Your task to perform on an android device: Is it going to rain today? Image 0: 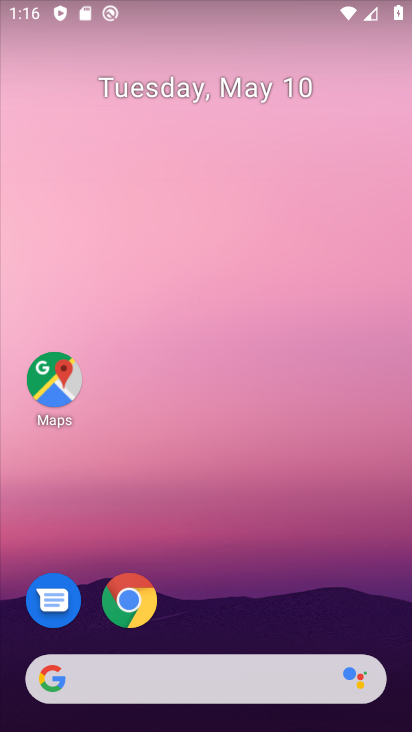
Step 0: drag from (194, 660) to (265, 89)
Your task to perform on an android device: Is it going to rain today? Image 1: 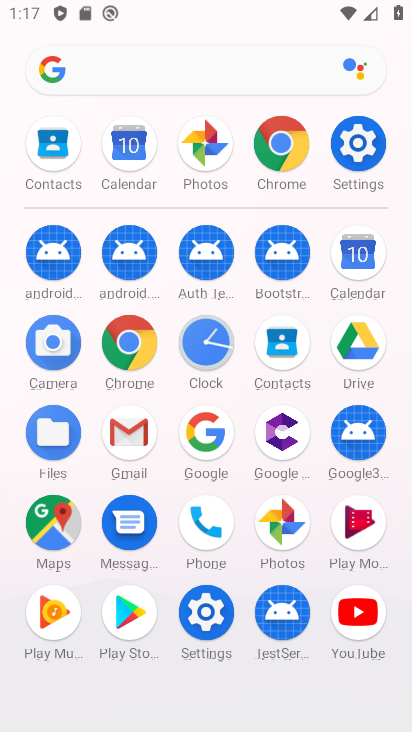
Step 1: click (211, 449)
Your task to perform on an android device: Is it going to rain today? Image 2: 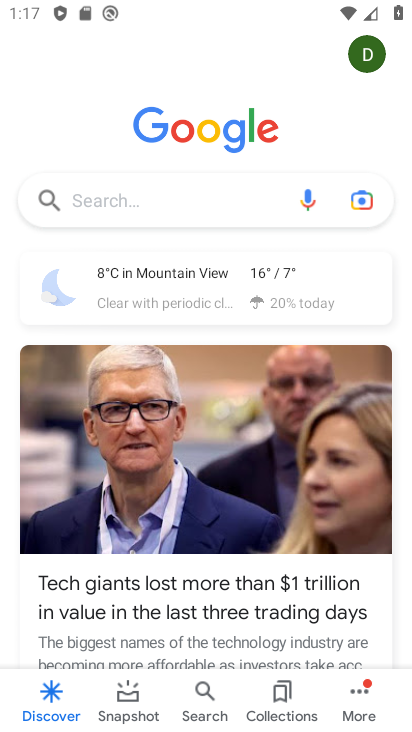
Step 2: click (210, 209)
Your task to perform on an android device: Is it going to rain today? Image 3: 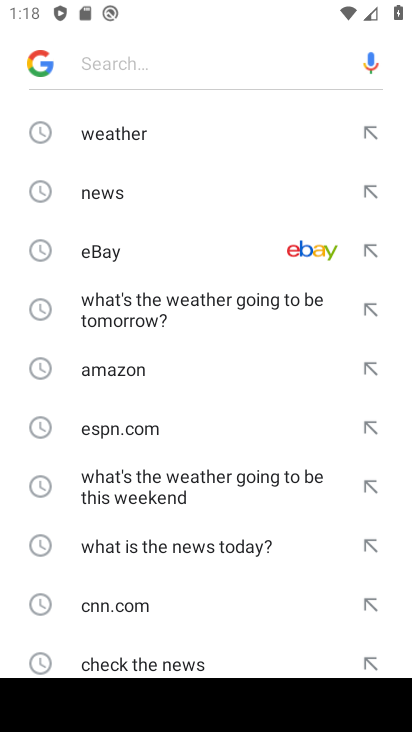
Step 3: click (220, 118)
Your task to perform on an android device: Is it going to rain today? Image 4: 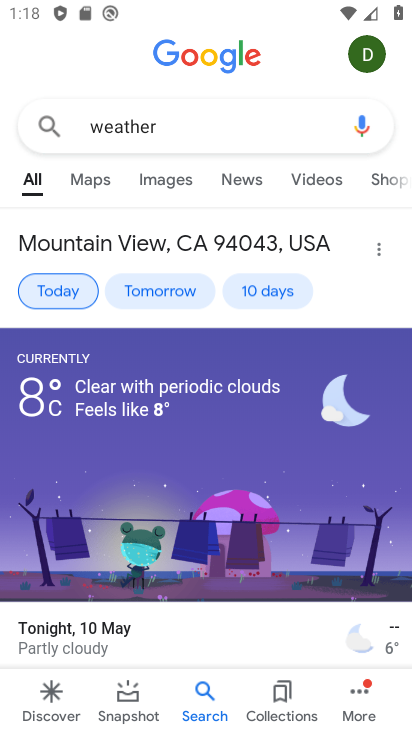
Step 4: task complete